Your task to perform on an android device: turn on showing notifications on the lock screen Image 0: 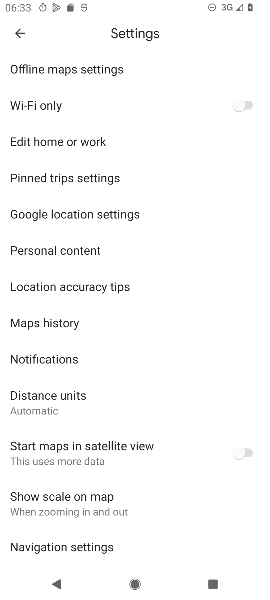
Step 0: press home button
Your task to perform on an android device: turn on showing notifications on the lock screen Image 1: 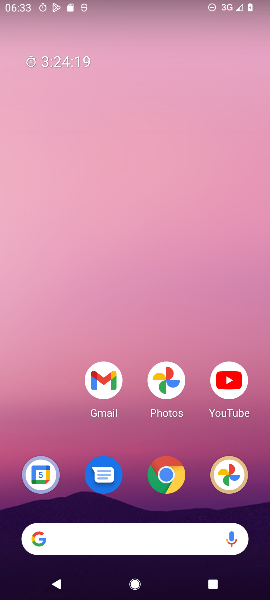
Step 1: drag from (63, 454) to (66, 211)
Your task to perform on an android device: turn on showing notifications on the lock screen Image 2: 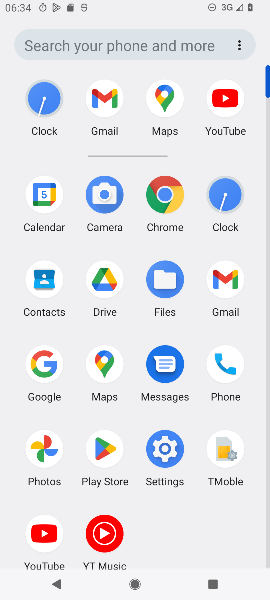
Step 2: click (165, 453)
Your task to perform on an android device: turn on showing notifications on the lock screen Image 3: 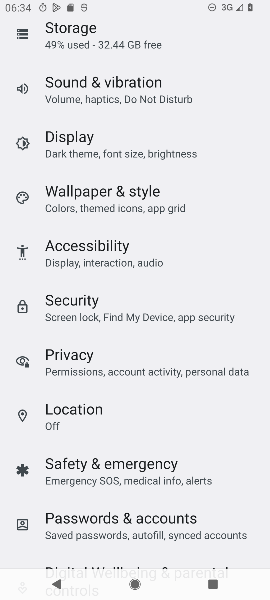
Step 3: drag from (228, 224) to (241, 292)
Your task to perform on an android device: turn on showing notifications on the lock screen Image 4: 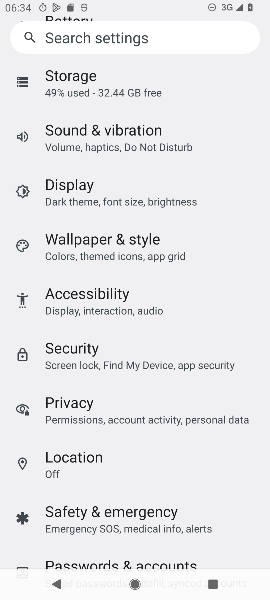
Step 4: drag from (232, 197) to (244, 280)
Your task to perform on an android device: turn on showing notifications on the lock screen Image 5: 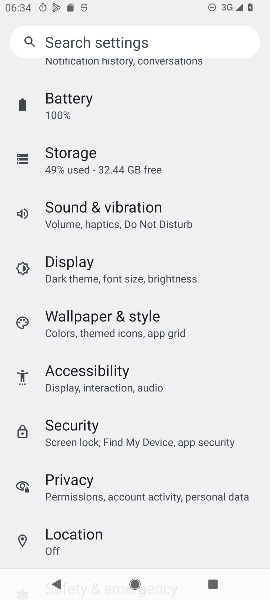
Step 5: drag from (234, 211) to (240, 323)
Your task to perform on an android device: turn on showing notifications on the lock screen Image 6: 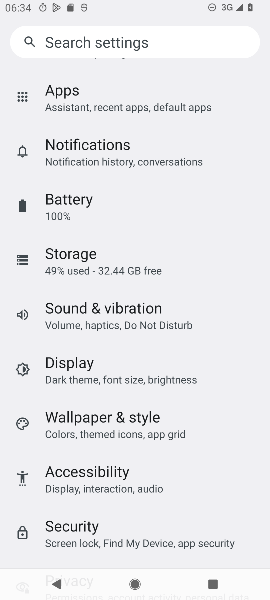
Step 6: drag from (233, 208) to (239, 299)
Your task to perform on an android device: turn on showing notifications on the lock screen Image 7: 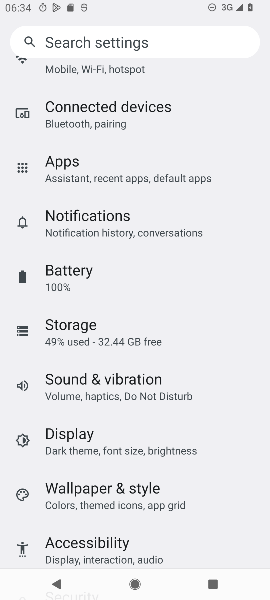
Step 7: drag from (238, 190) to (245, 288)
Your task to perform on an android device: turn on showing notifications on the lock screen Image 8: 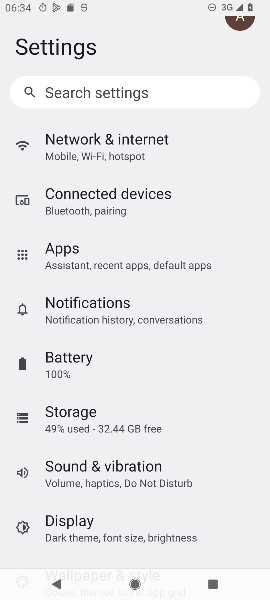
Step 8: drag from (238, 154) to (245, 319)
Your task to perform on an android device: turn on showing notifications on the lock screen Image 9: 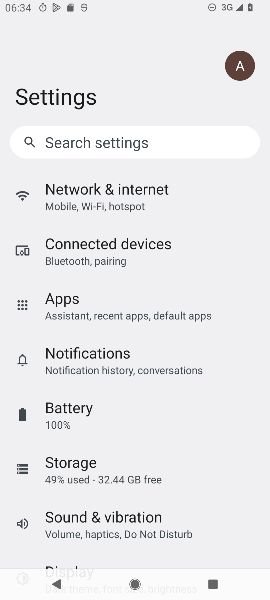
Step 9: click (174, 353)
Your task to perform on an android device: turn on showing notifications on the lock screen Image 10: 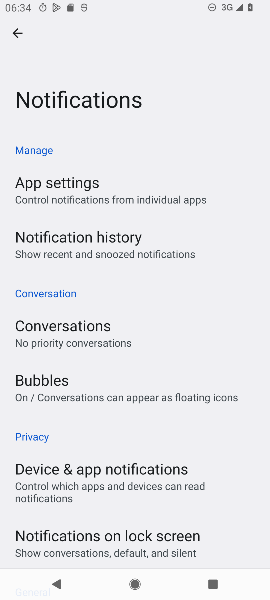
Step 10: drag from (177, 354) to (183, 287)
Your task to perform on an android device: turn on showing notifications on the lock screen Image 11: 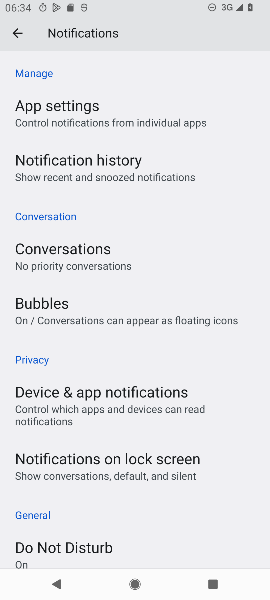
Step 11: drag from (215, 387) to (223, 259)
Your task to perform on an android device: turn on showing notifications on the lock screen Image 12: 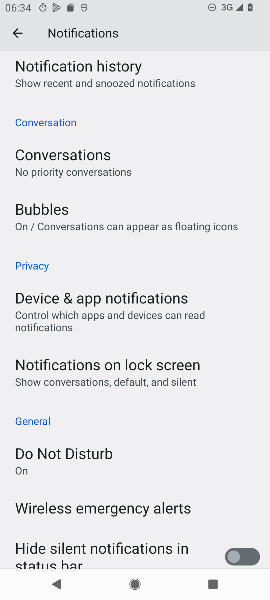
Step 12: drag from (211, 395) to (224, 278)
Your task to perform on an android device: turn on showing notifications on the lock screen Image 13: 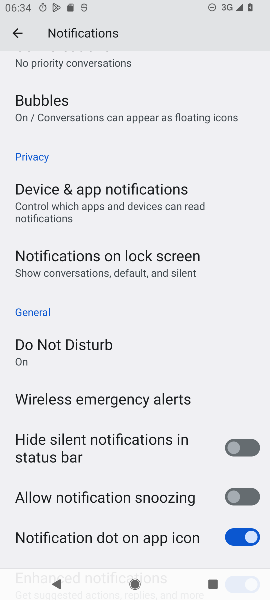
Step 13: click (178, 257)
Your task to perform on an android device: turn on showing notifications on the lock screen Image 14: 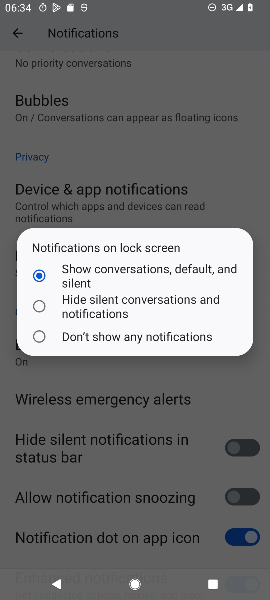
Step 14: task complete